Your task to perform on an android device: Go to eBay Image 0: 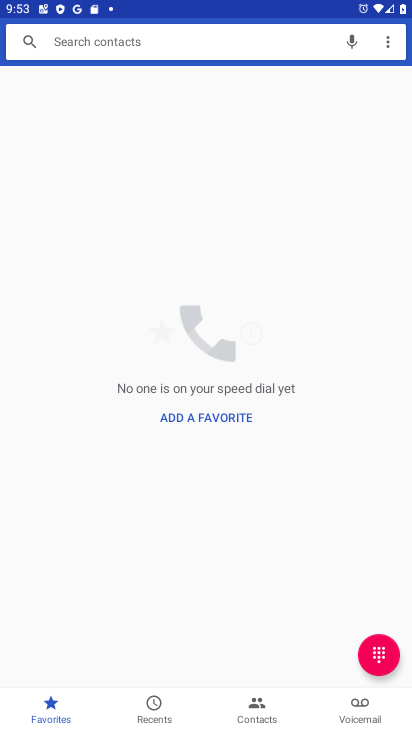
Step 0: press home button
Your task to perform on an android device: Go to eBay Image 1: 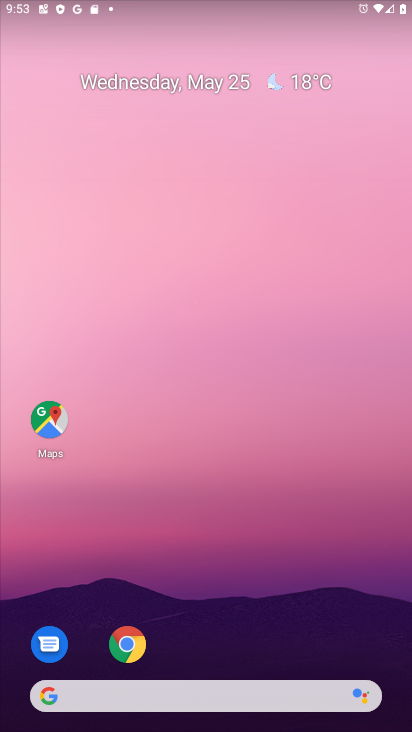
Step 1: click (121, 641)
Your task to perform on an android device: Go to eBay Image 2: 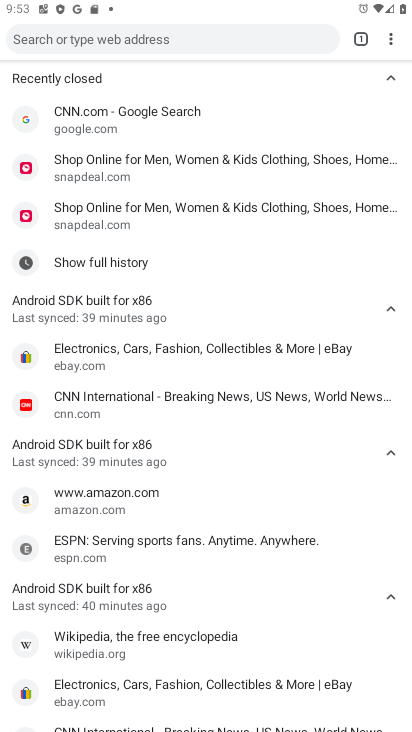
Step 2: click (361, 35)
Your task to perform on an android device: Go to eBay Image 3: 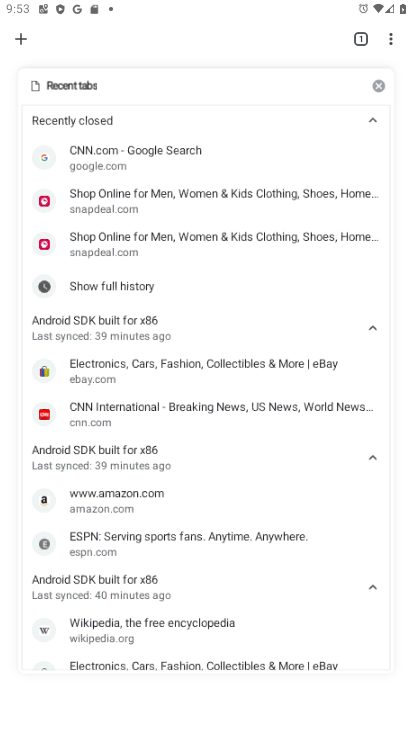
Step 3: click (381, 80)
Your task to perform on an android device: Go to eBay Image 4: 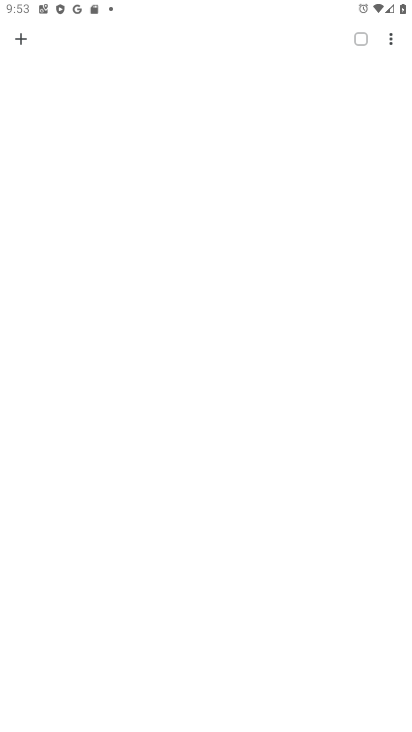
Step 4: click (22, 34)
Your task to perform on an android device: Go to eBay Image 5: 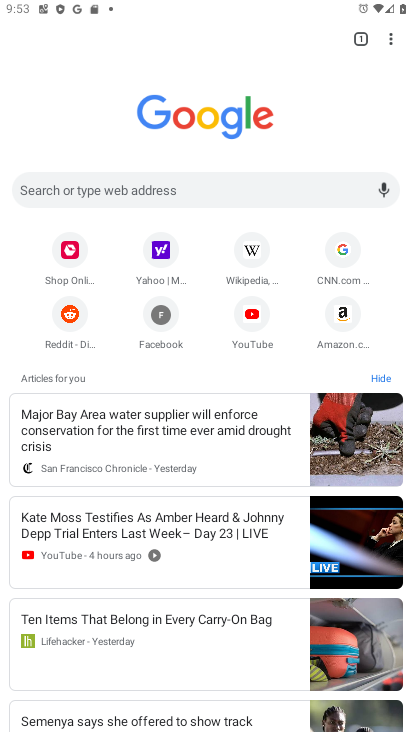
Step 5: click (127, 191)
Your task to perform on an android device: Go to eBay Image 6: 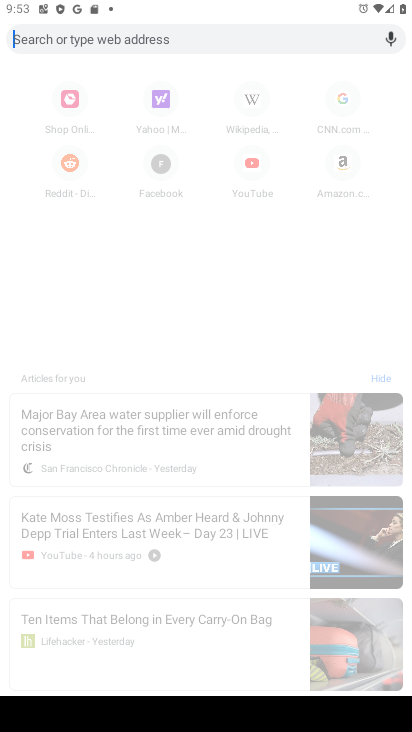
Step 6: type "ebay"
Your task to perform on an android device: Go to eBay Image 7: 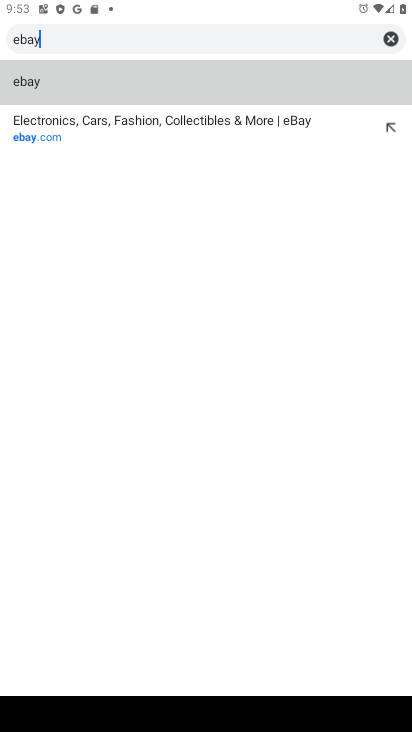
Step 7: click (84, 129)
Your task to perform on an android device: Go to eBay Image 8: 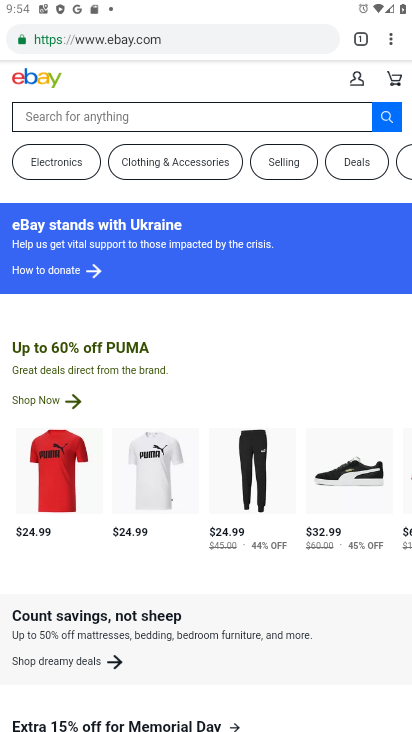
Step 8: task complete